Your task to perform on an android device: Search for Italian restaurants on Maps Image 0: 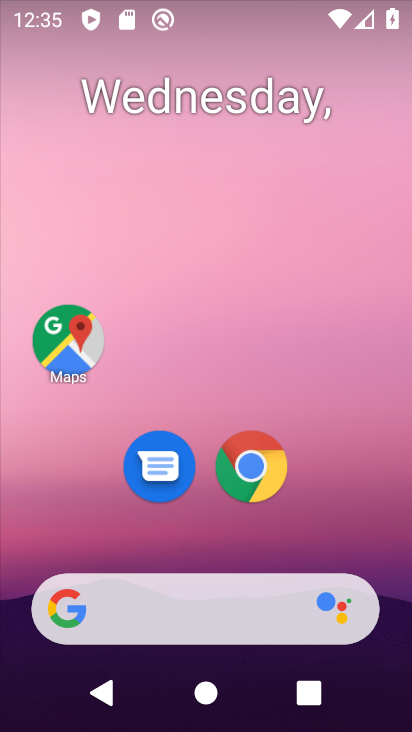
Step 0: press home button
Your task to perform on an android device: Search for Italian restaurants on Maps Image 1: 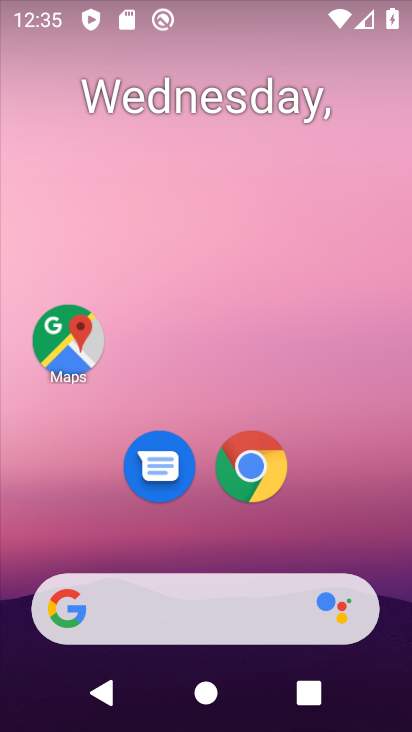
Step 1: press home button
Your task to perform on an android device: Search for Italian restaurants on Maps Image 2: 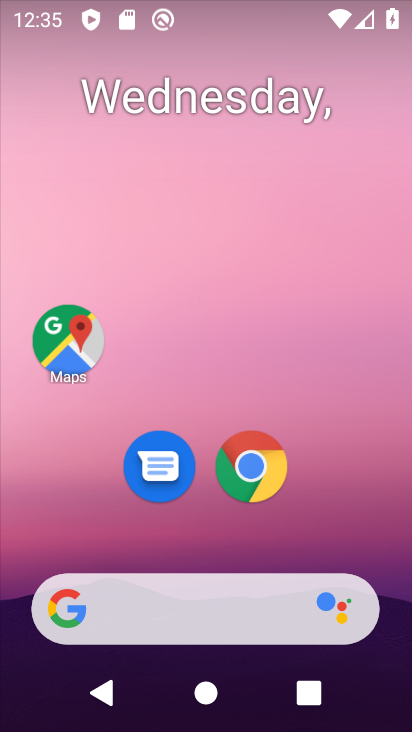
Step 2: drag from (341, 474) to (335, 71)
Your task to perform on an android device: Search for Italian restaurants on Maps Image 3: 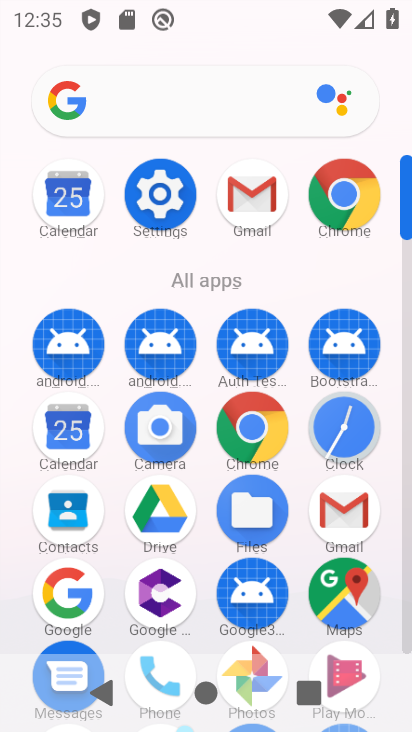
Step 3: click (349, 584)
Your task to perform on an android device: Search for Italian restaurants on Maps Image 4: 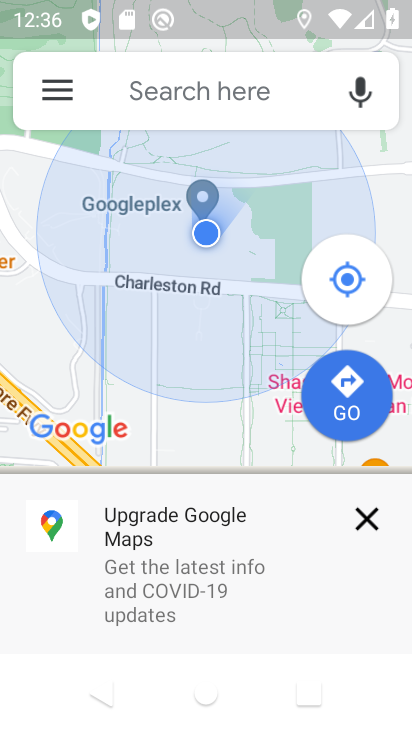
Step 4: click (54, 80)
Your task to perform on an android device: Search for Italian restaurants on Maps Image 5: 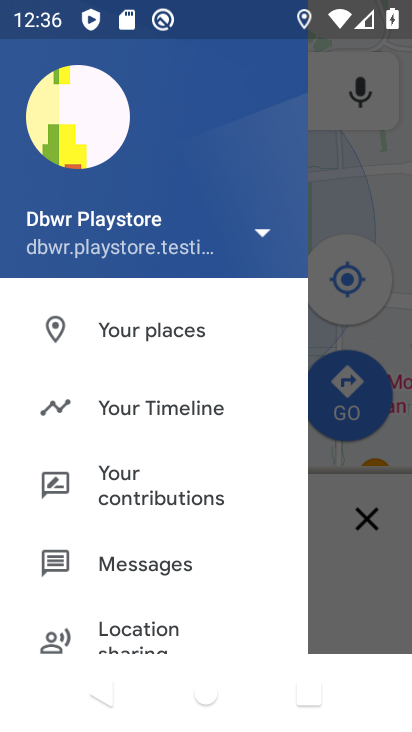
Step 5: click (136, 408)
Your task to perform on an android device: Search for Italian restaurants on Maps Image 6: 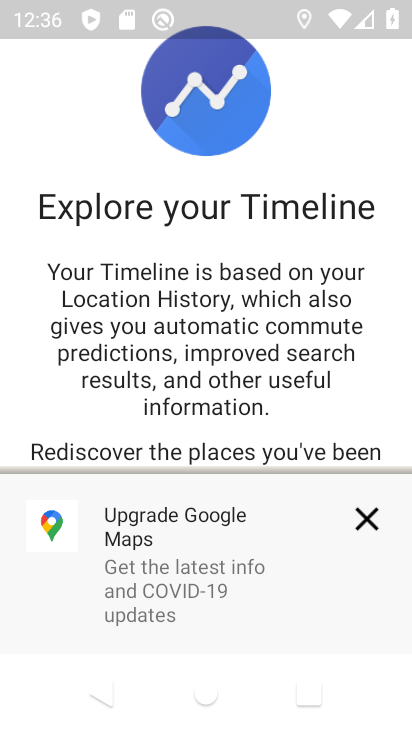
Step 6: click (376, 517)
Your task to perform on an android device: Search for Italian restaurants on Maps Image 7: 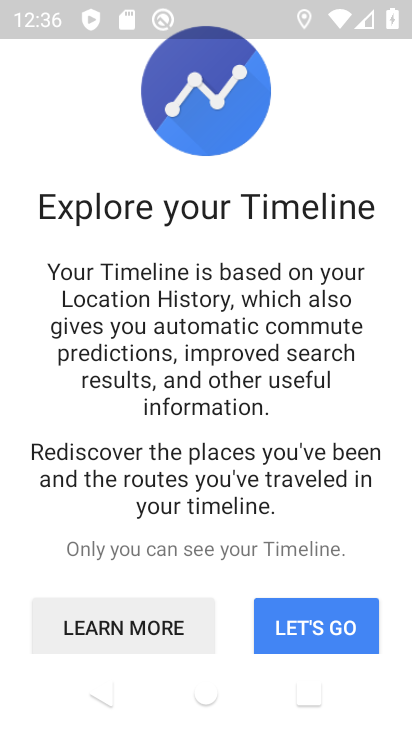
Step 7: click (302, 616)
Your task to perform on an android device: Search for Italian restaurants on Maps Image 8: 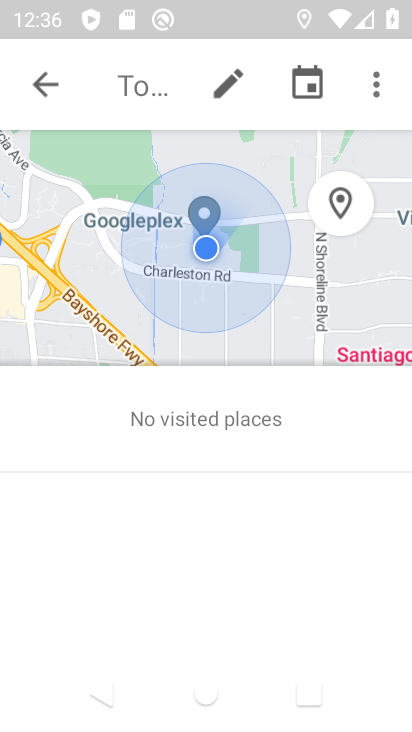
Step 8: click (33, 88)
Your task to perform on an android device: Search for Italian restaurants on Maps Image 9: 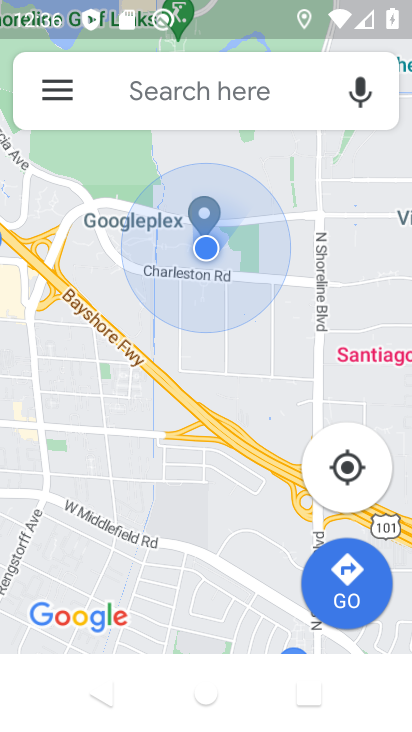
Step 9: click (148, 85)
Your task to perform on an android device: Search for Italian restaurants on Maps Image 10: 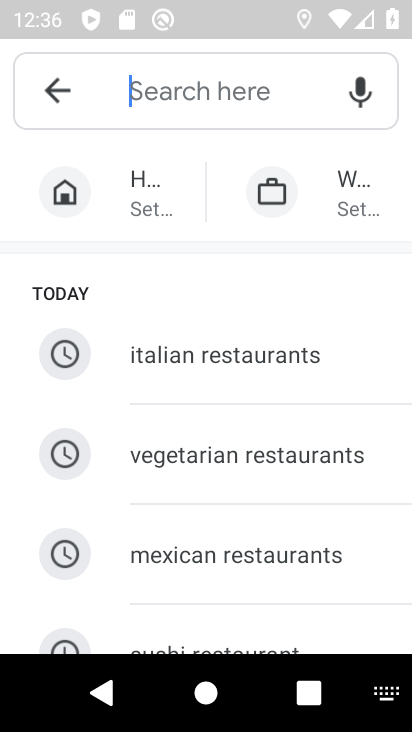
Step 10: type "Italian restaurants"
Your task to perform on an android device: Search for Italian restaurants on Maps Image 11: 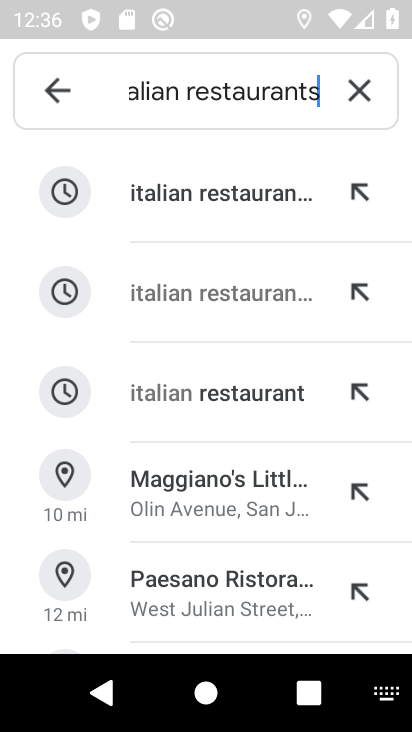
Step 11: click (316, 200)
Your task to perform on an android device: Search for Italian restaurants on Maps Image 12: 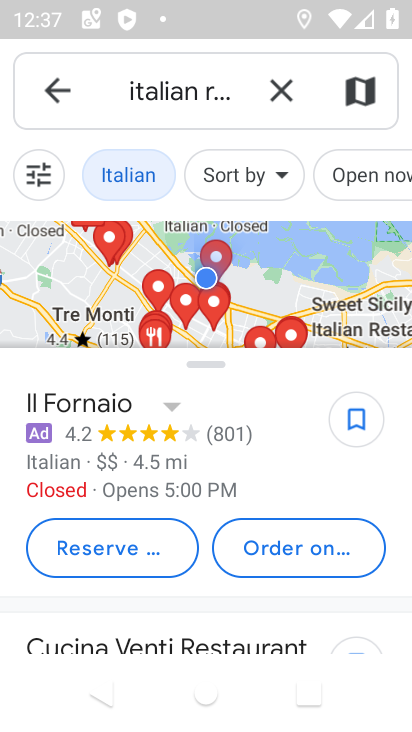
Step 12: task complete